Your task to perform on an android device: Go to wifi settings Image 0: 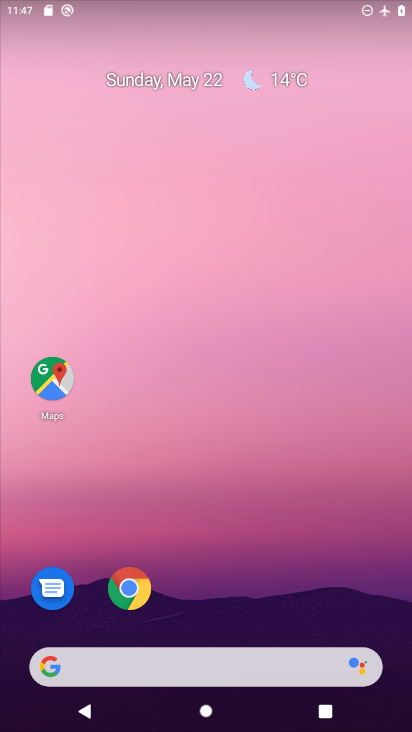
Step 0: drag from (216, 602) to (248, 141)
Your task to perform on an android device: Go to wifi settings Image 1: 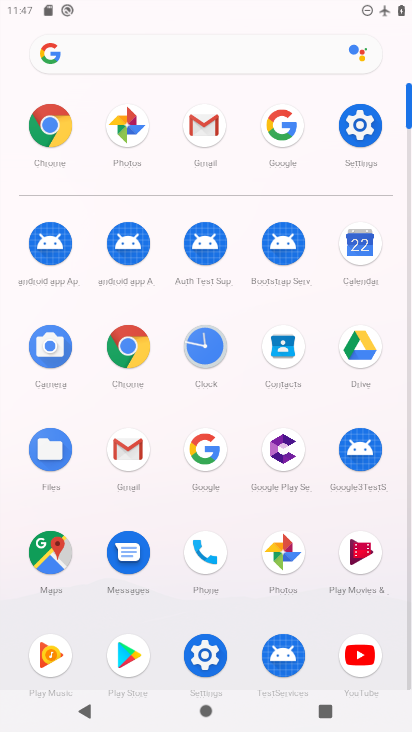
Step 1: click (347, 117)
Your task to perform on an android device: Go to wifi settings Image 2: 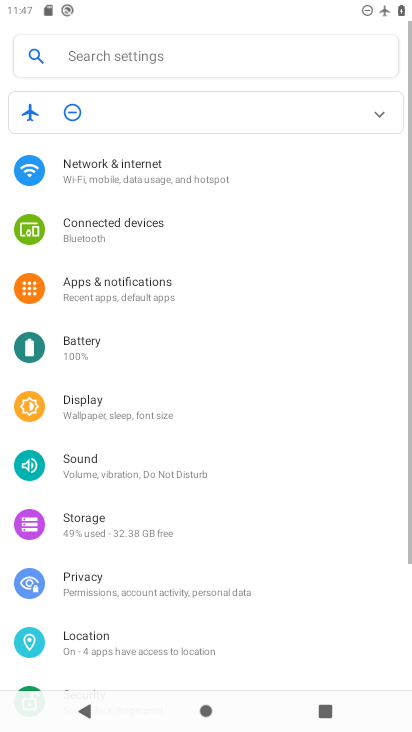
Step 2: click (115, 177)
Your task to perform on an android device: Go to wifi settings Image 3: 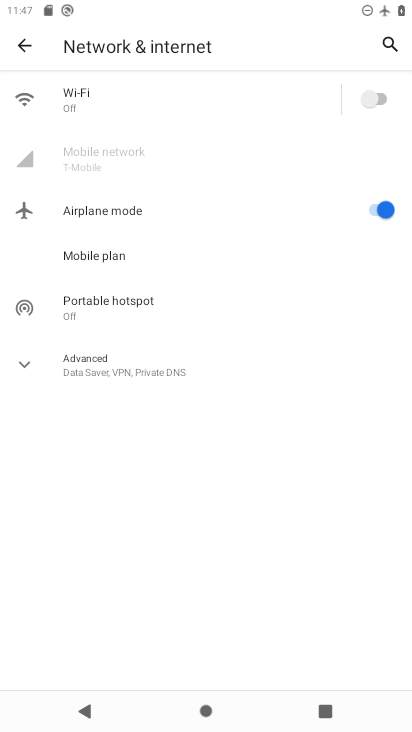
Step 3: click (134, 103)
Your task to perform on an android device: Go to wifi settings Image 4: 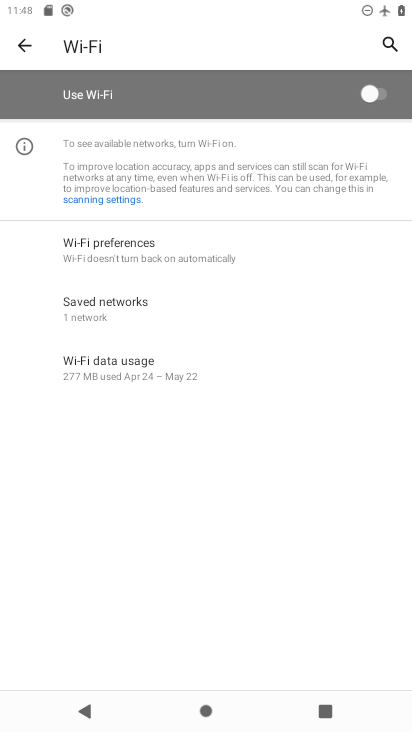
Step 4: task complete